Your task to perform on an android device: Open CNN.com Image 0: 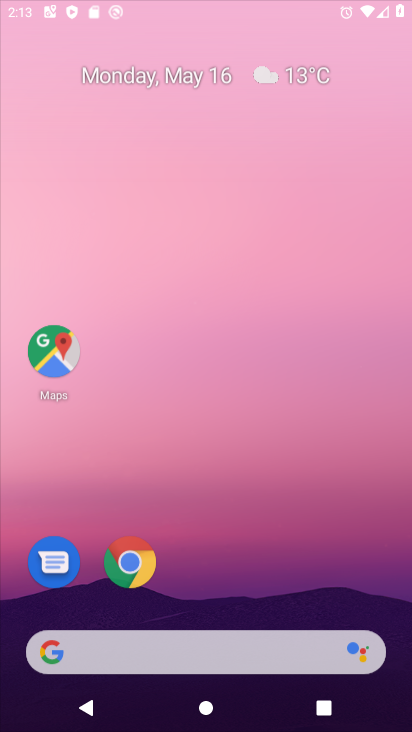
Step 0: press home button
Your task to perform on an android device: Open CNN.com Image 1: 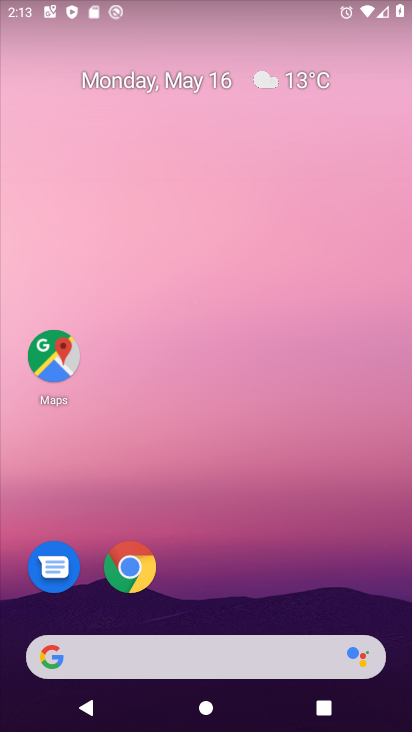
Step 1: click (113, 570)
Your task to perform on an android device: Open CNN.com Image 2: 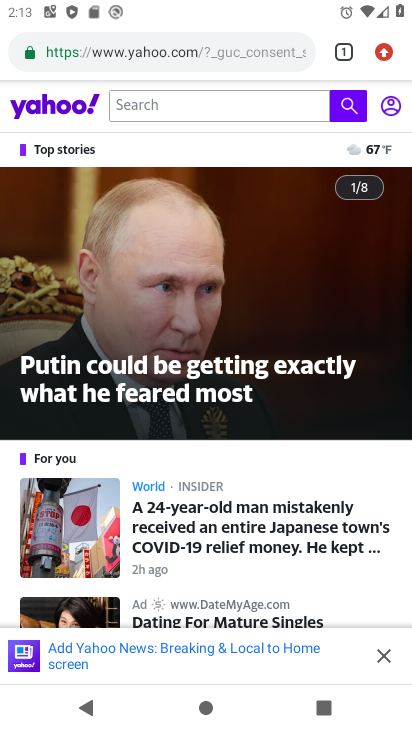
Step 2: click (276, 45)
Your task to perform on an android device: Open CNN.com Image 3: 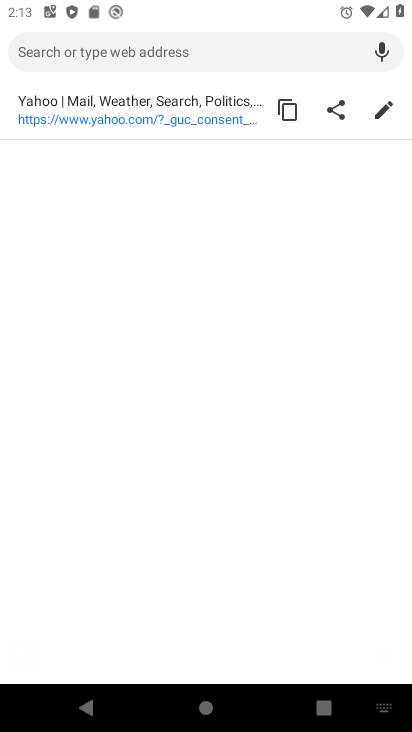
Step 3: type "CNN.com"
Your task to perform on an android device: Open CNN.com Image 4: 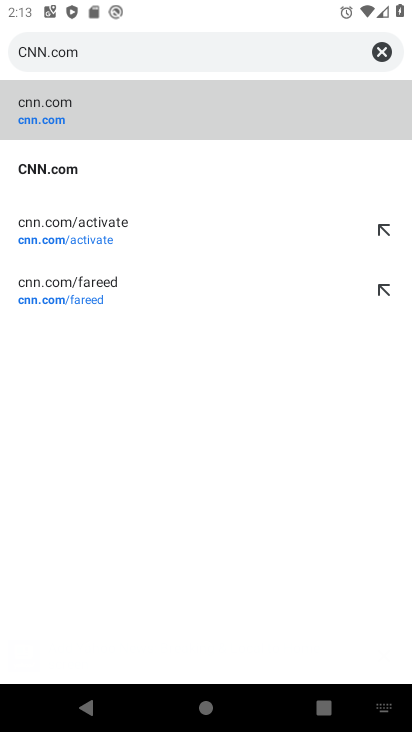
Step 4: click (95, 87)
Your task to perform on an android device: Open CNN.com Image 5: 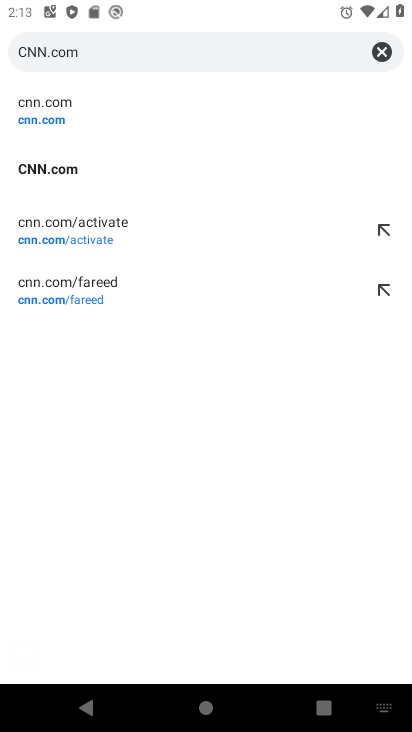
Step 5: click (49, 132)
Your task to perform on an android device: Open CNN.com Image 6: 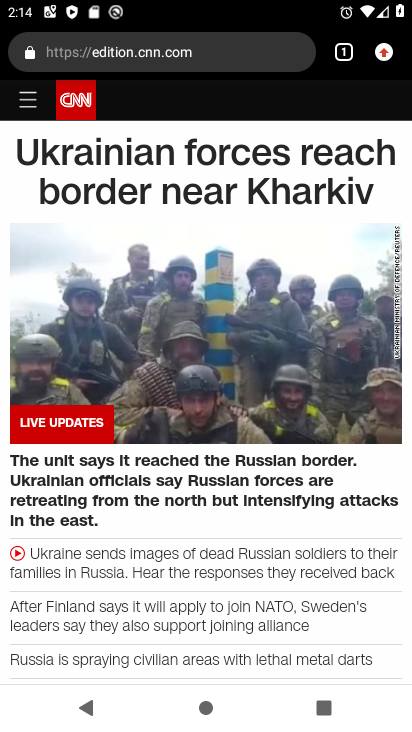
Step 6: task complete